Your task to perform on an android device: Open maps Image 0: 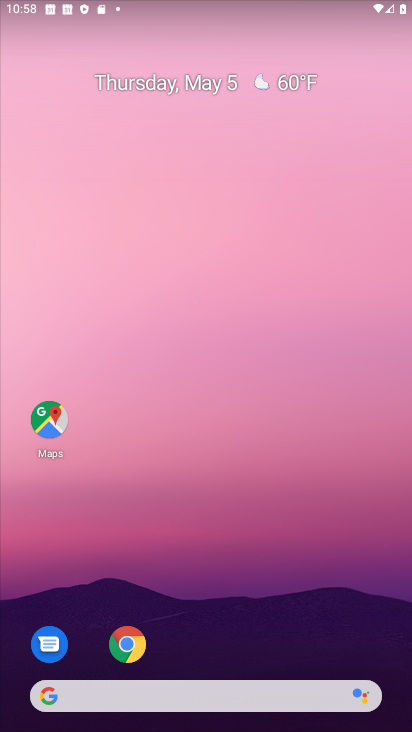
Step 0: drag from (219, 668) to (231, 155)
Your task to perform on an android device: Open maps Image 1: 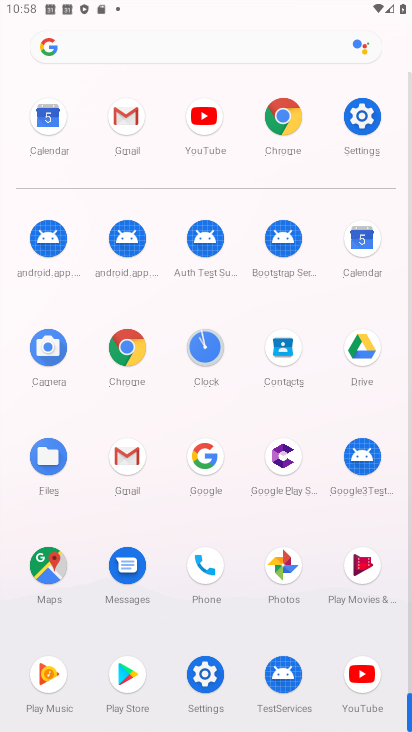
Step 1: click (47, 562)
Your task to perform on an android device: Open maps Image 2: 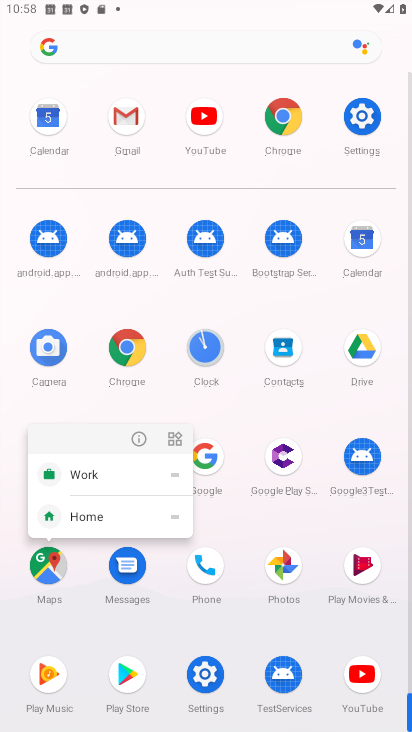
Step 2: click (136, 422)
Your task to perform on an android device: Open maps Image 3: 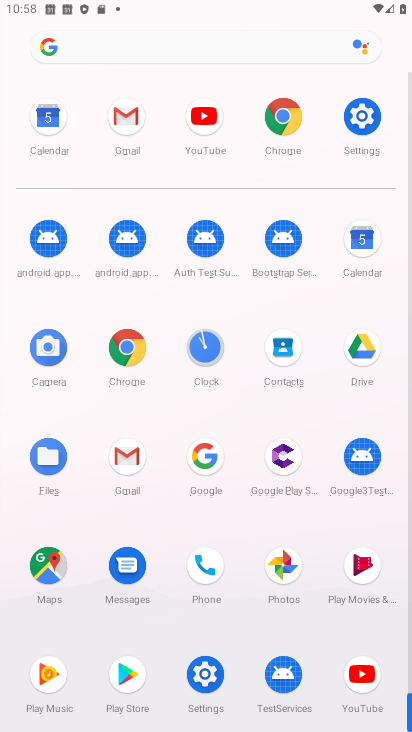
Step 3: click (42, 568)
Your task to perform on an android device: Open maps Image 4: 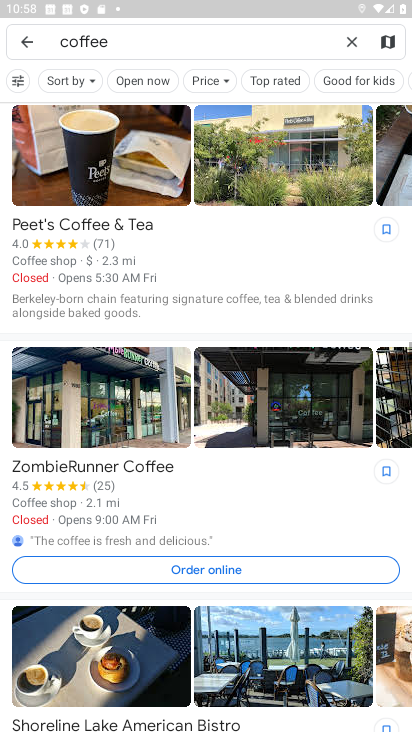
Step 4: click (25, 35)
Your task to perform on an android device: Open maps Image 5: 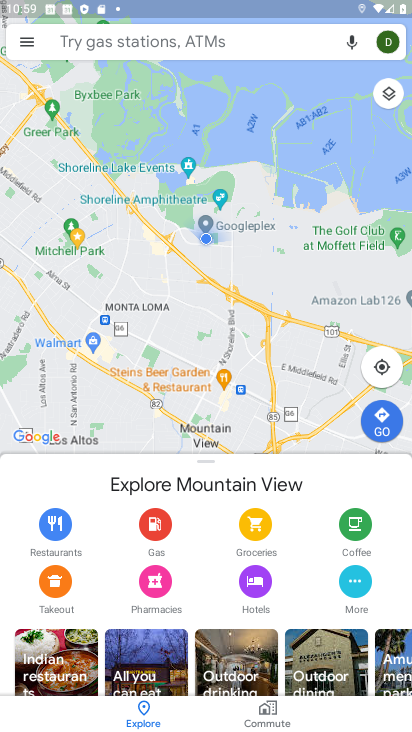
Step 5: click (118, 39)
Your task to perform on an android device: Open maps Image 6: 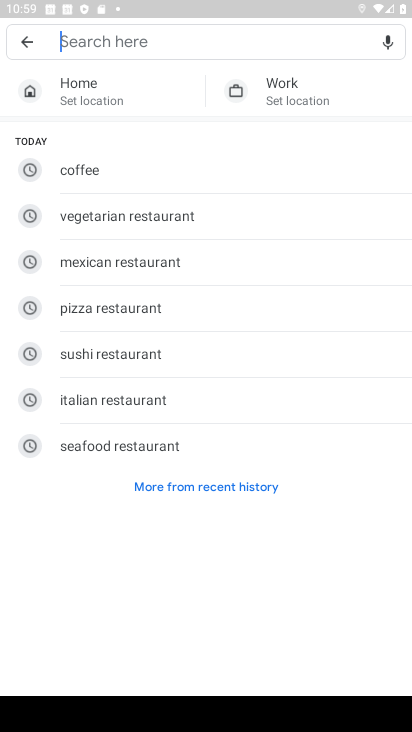
Step 6: type "map"
Your task to perform on an android device: Open maps Image 7: 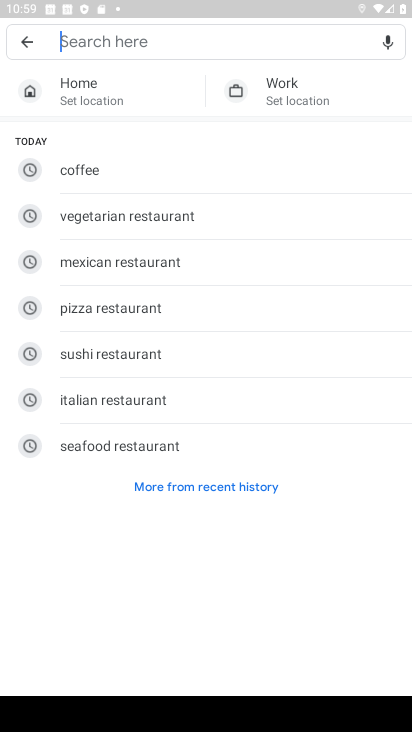
Step 7: click (23, 35)
Your task to perform on an android device: Open maps Image 8: 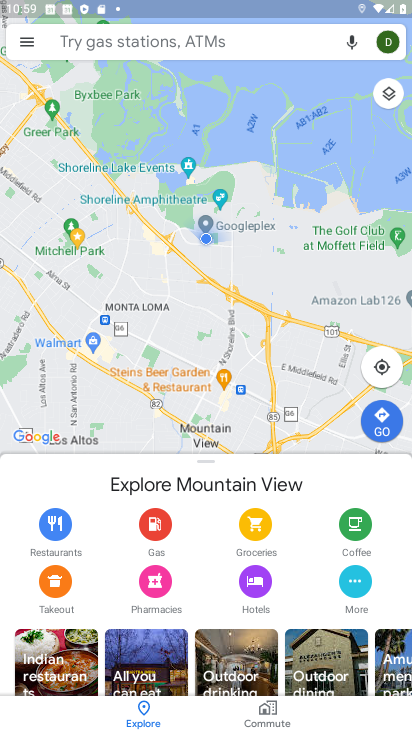
Step 8: task complete